Your task to perform on an android device: Add "beats solo 3" to the cart on amazon Image 0: 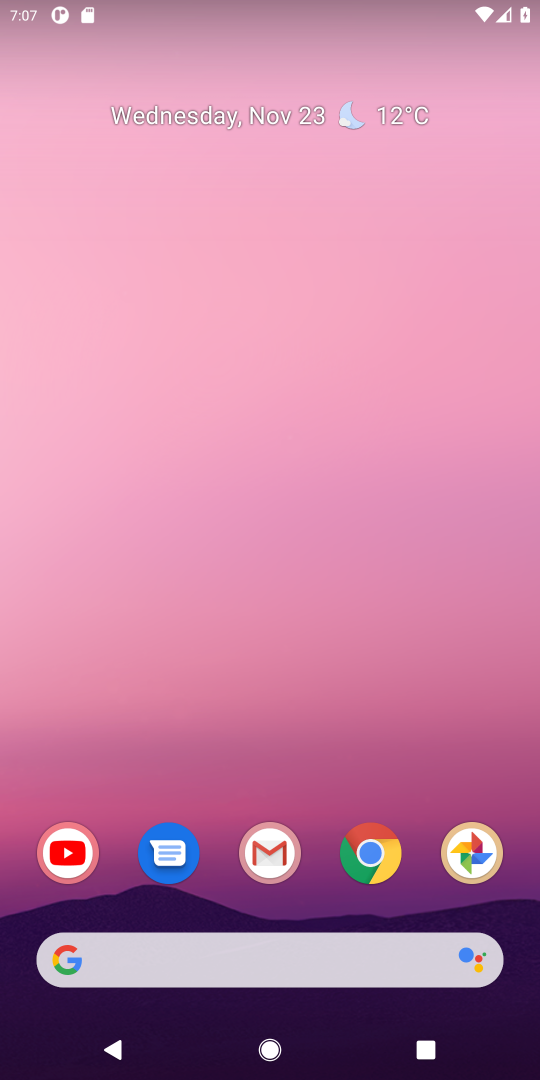
Step 0: click (372, 841)
Your task to perform on an android device: Add "beats solo 3" to the cart on amazon Image 1: 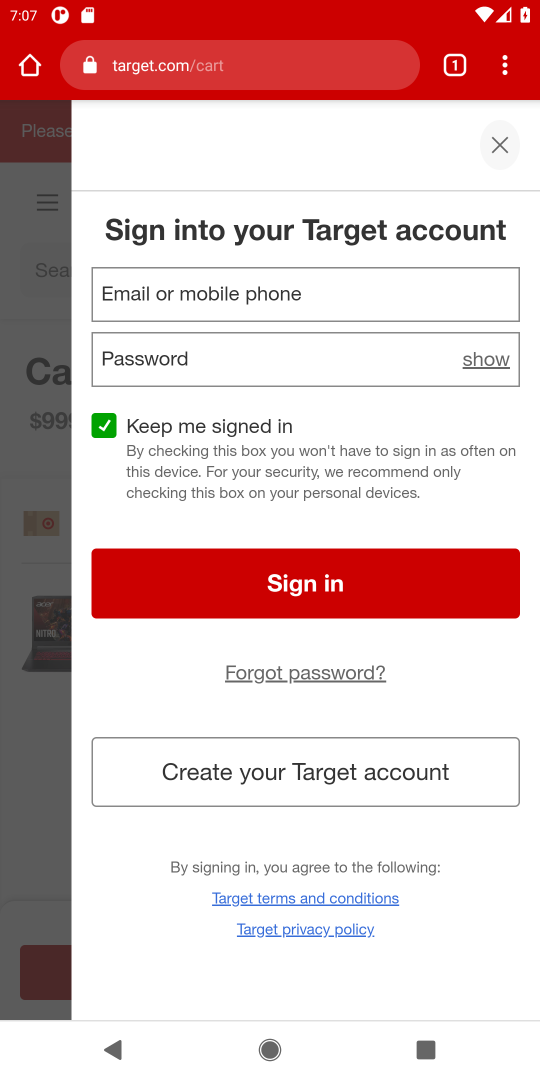
Step 1: click (172, 70)
Your task to perform on an android device: Add "beats solo 3" to the cart on amazon Image 2: 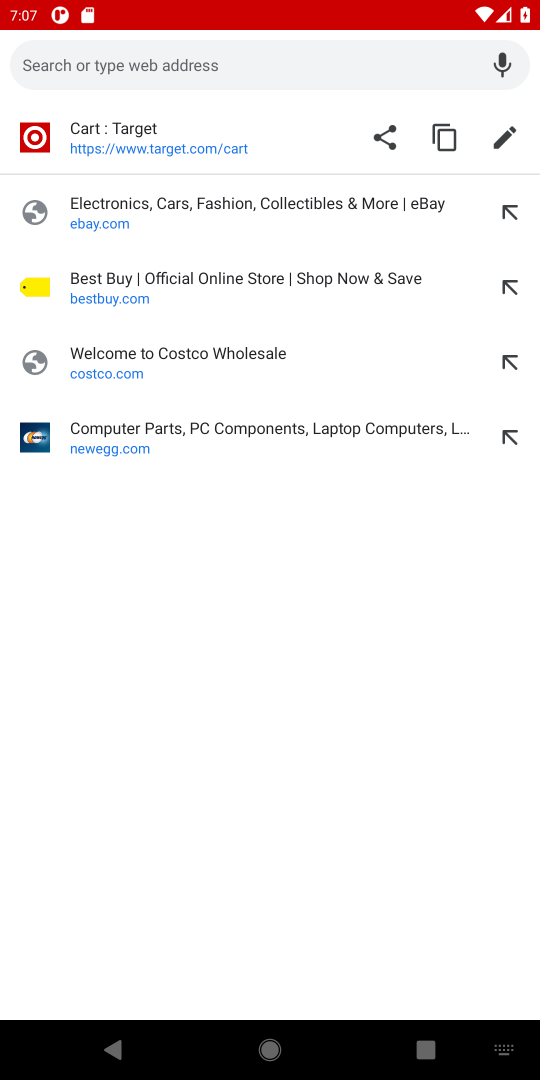
Step 2: type "amazon.com"
Your task to perform on an android device: Add "beats solo 3" to the cart on amazon Image 3: 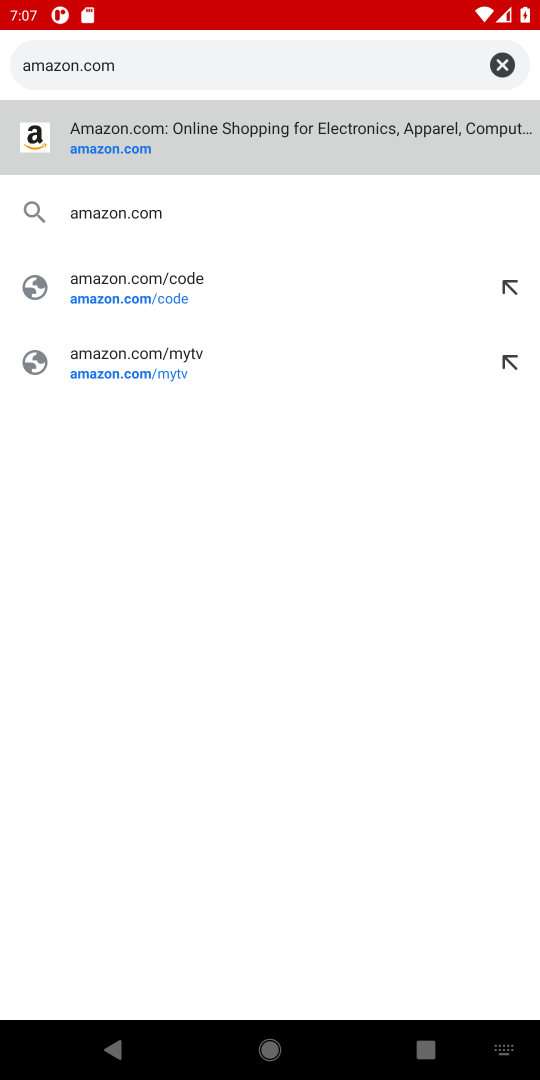
Step 3: click (112, 148)
Your task to perform on an android device: Add "beats solo 3" to the cart on amazon Image 4: 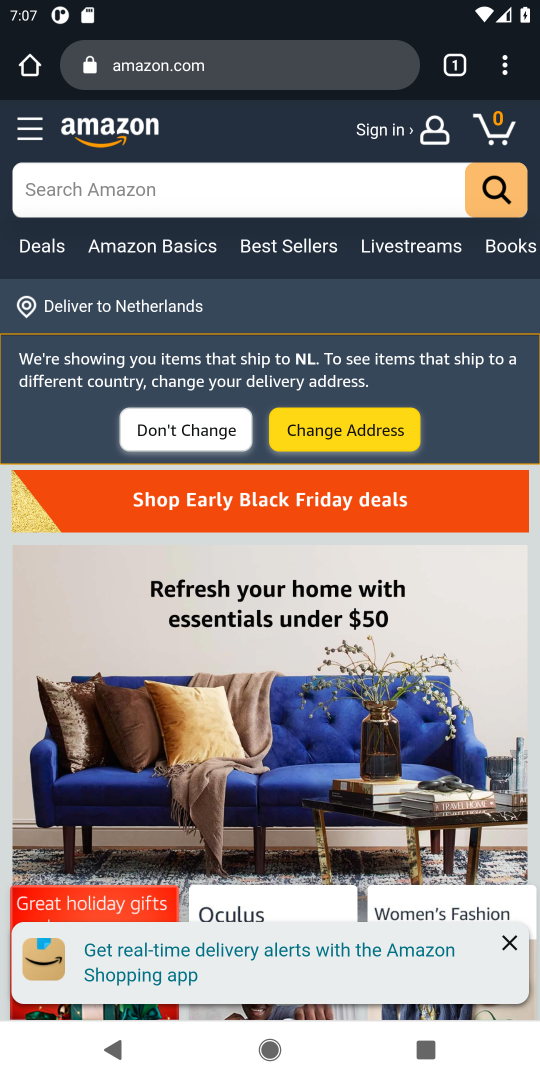
Step 4: click (106, 199)
Your task to perform on an android device: Add "beats solo 3" to the cart on amazon Image 5: 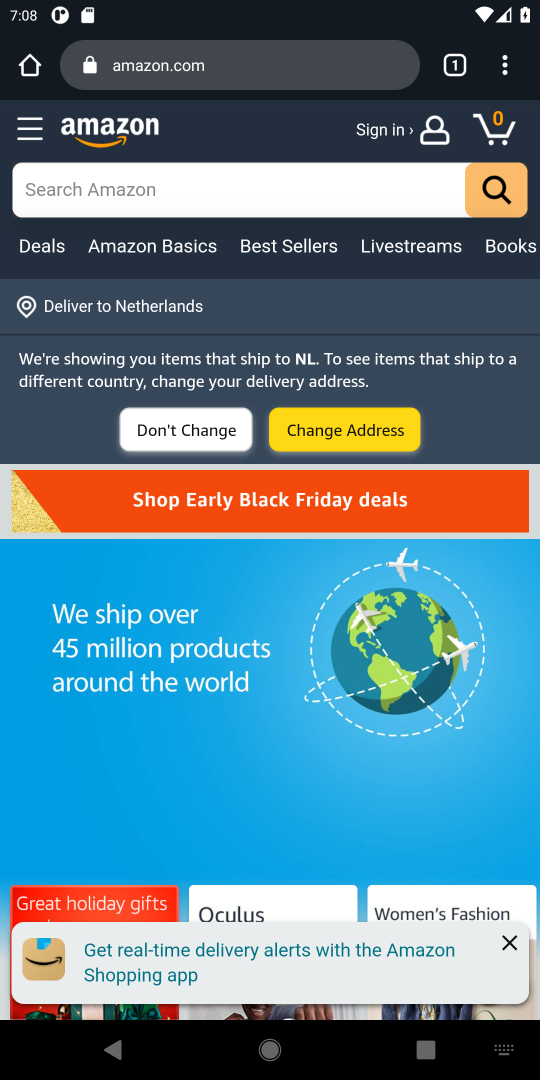
Step 5: type "beats solo 3"
Your task to perform on an android device: Add "beats solo 3" to the cart on amazon Image 6: 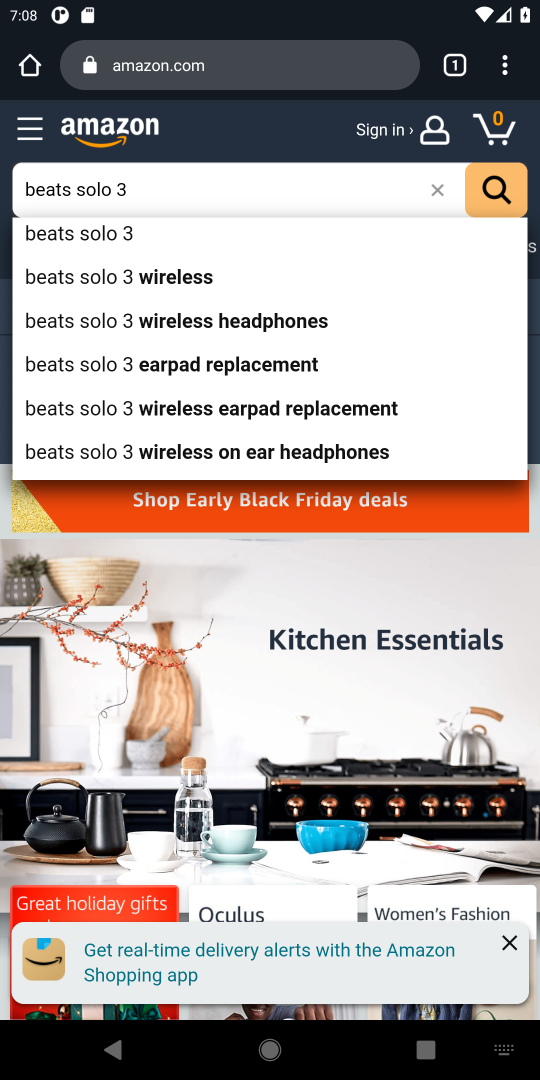
Step 6: click (96, 251)
Your task to perform on an android device: Add "beats solo 3" to the cart on amazon Image 7: 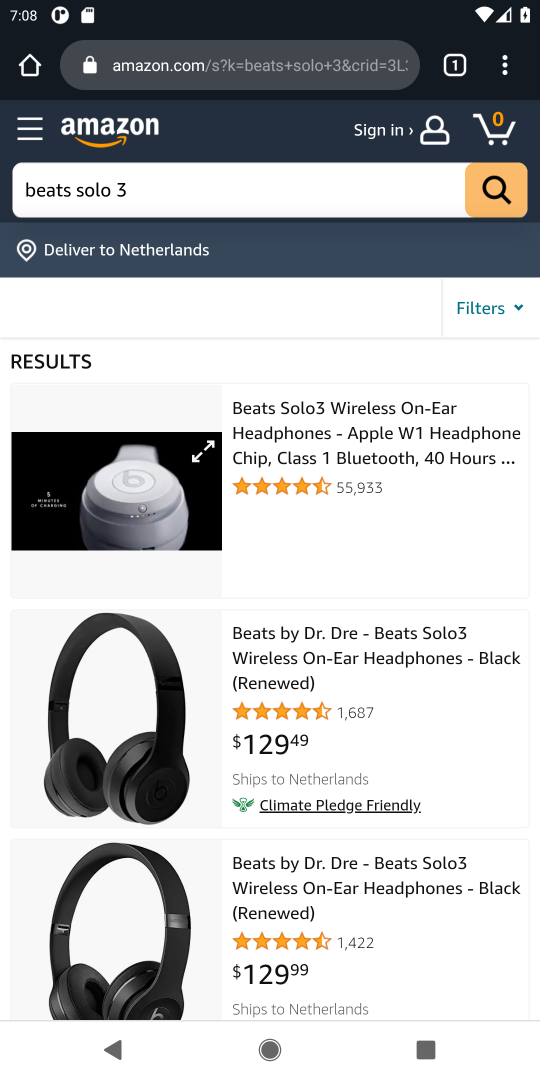
Step 7: drag from (85, 756) to (117, 509)
Your task to perform on an android device: Add "beats solo 3" to the cart on amazon Image 8: 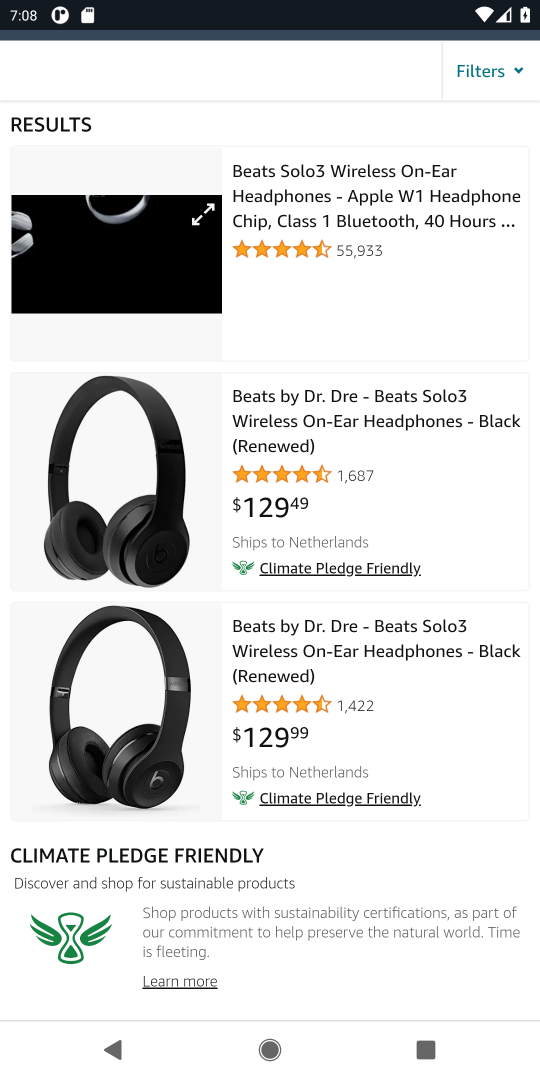
Step 8: click (113, 476)
Your task to perform on an android device: Add "beats solo 3" to the cart on amazon Image 9: 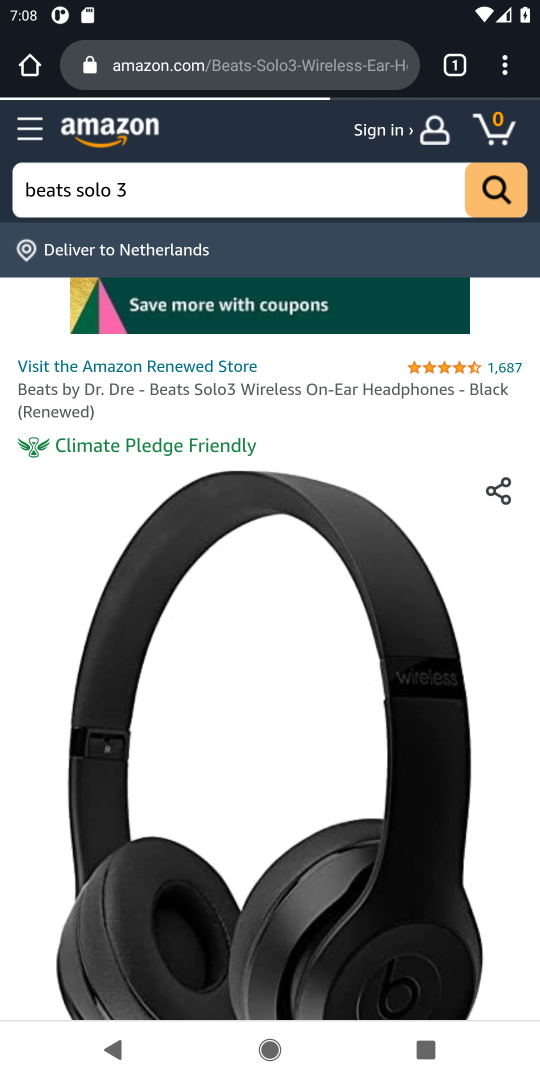
Step 9: drag from (210, 530) to (203, 284)
Your task to perform on an android device: Add "beats solo 3" to the cart on amazon Image 10: 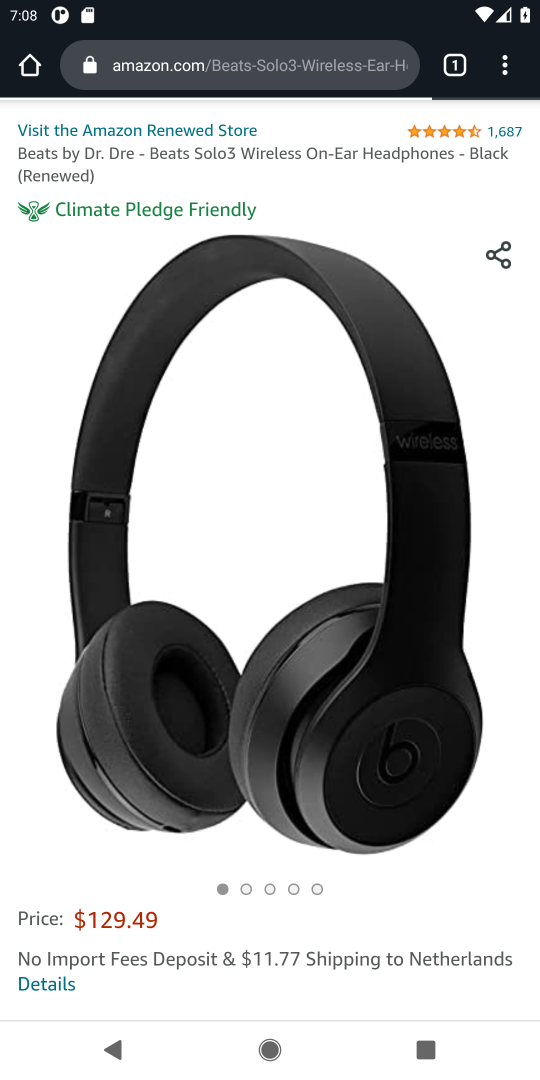
Step 10: drag from (214, 782) to (199, 312)
Your task to perform on an android device: Add "beats solo 3" to the cart on amazon Image 11: 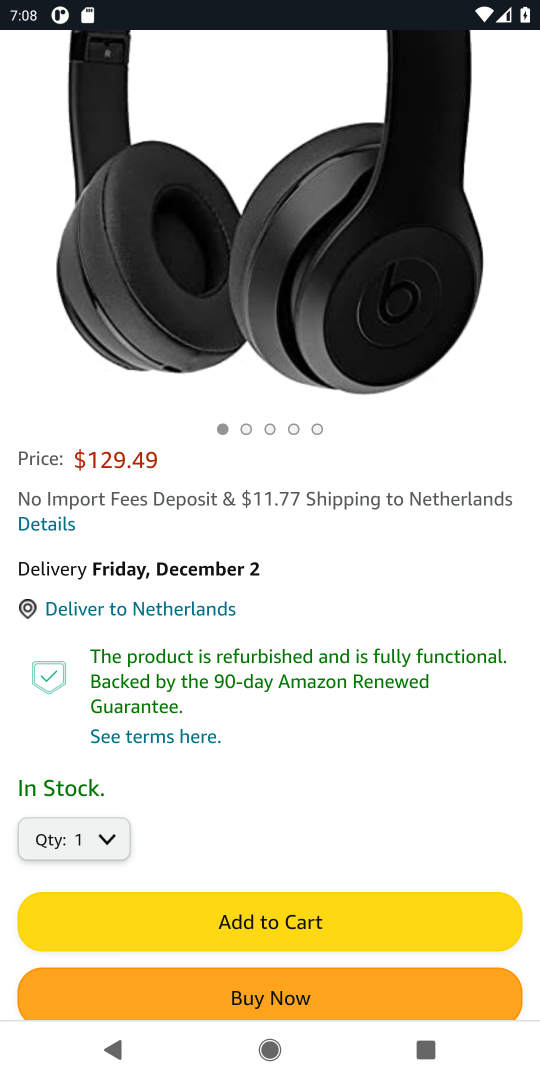
Step 11: drag from (212, 729) to (209, 532)
Your task to perform on an android device: Add "beats solo 3" to the cart on amazon Image 12: 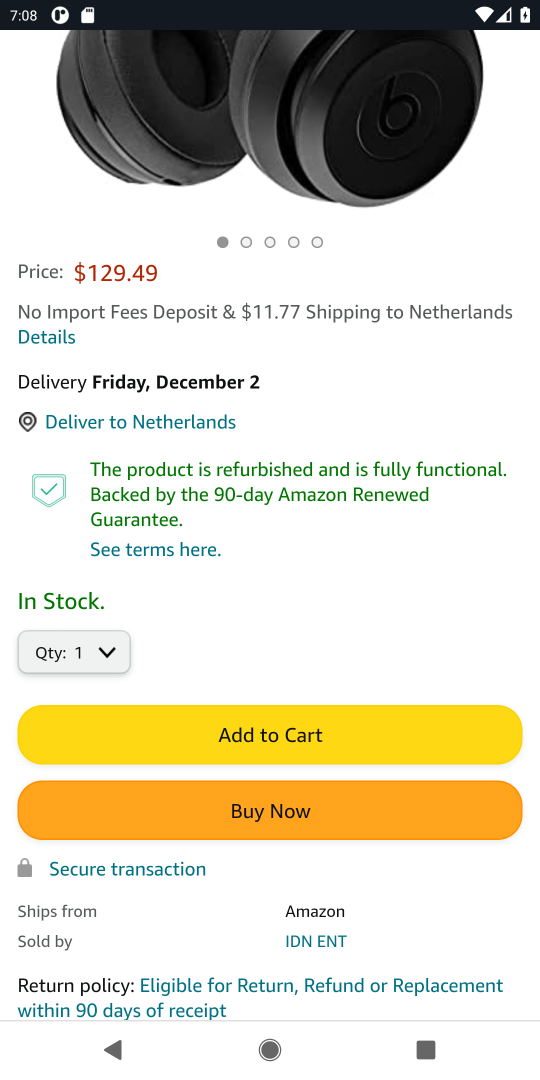
Step 12: click (198, 730)
Your task to perform on an android device: Add "beats solo 3" to the cart on amazon Image 13: 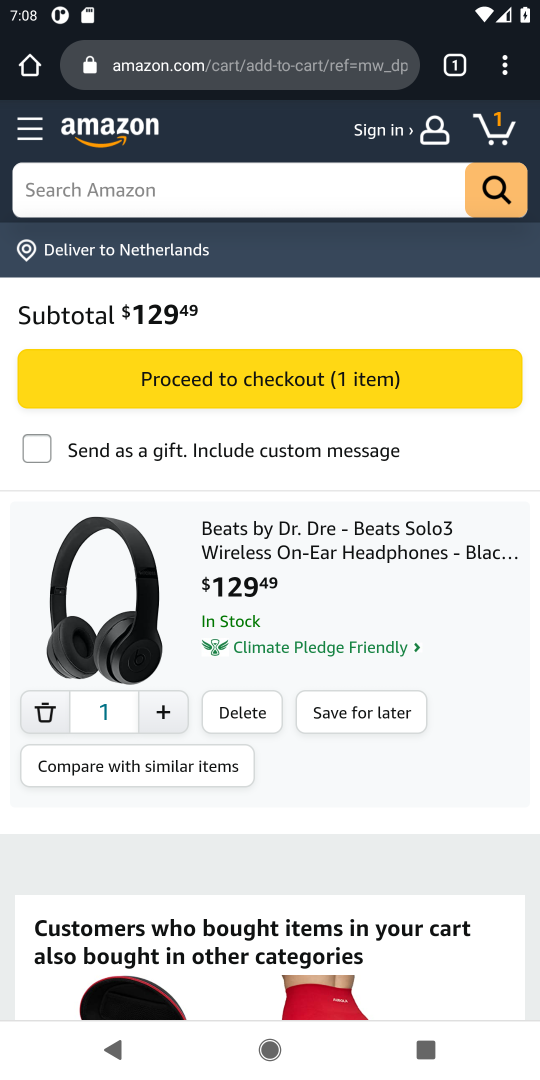
Step 13: task complete